Your task to perform on an android device: See recent photos Image 0: 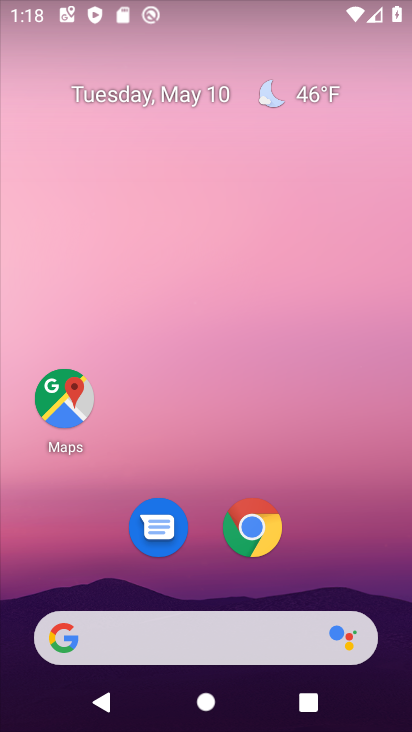
Step 0: drag from (322, 466) to (286, 1)
Your task to perform on an android device: See recent photos Image 1: 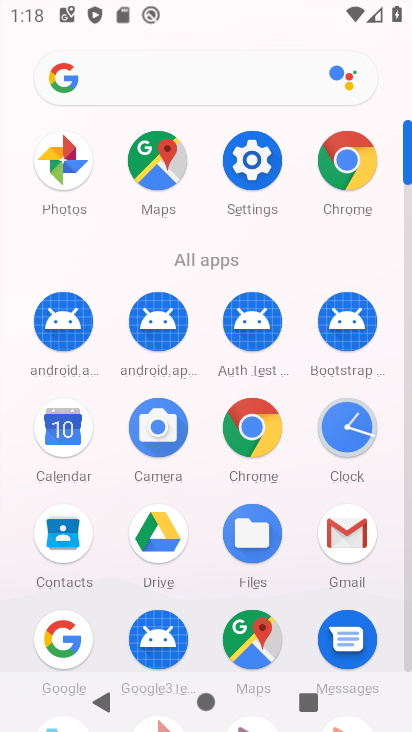
Step 1: click (56, 168)
Your task to perform on an android device: See recent photos Image 2: 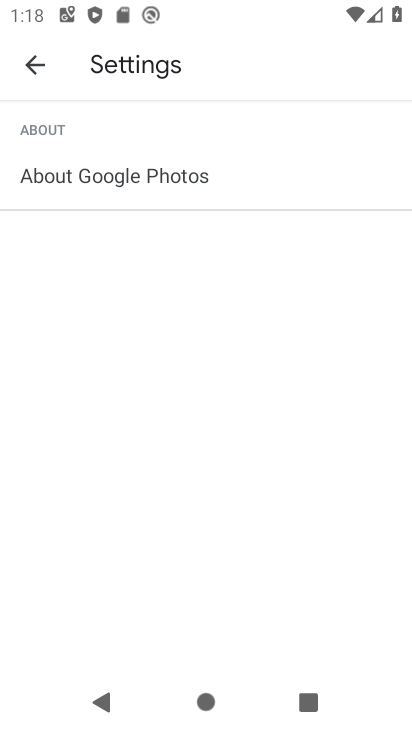
Step 2: click (31, 69)
Your task to perform on an android device: See recent photos Image 3: 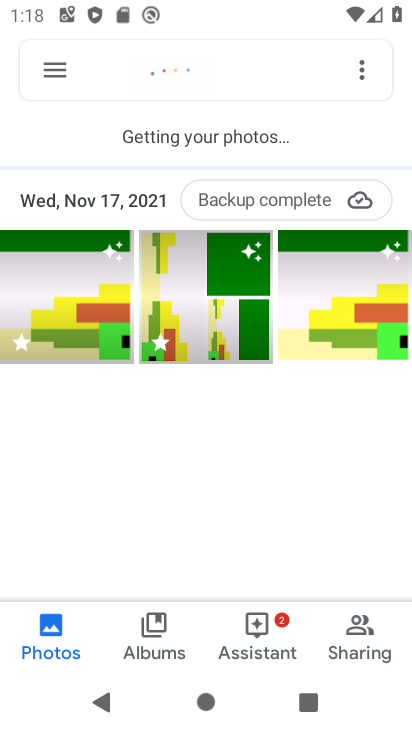
Step 3: drag from (260, 482) to (256, 361)
Your task to perform on an android device: See recent photos Image 4: 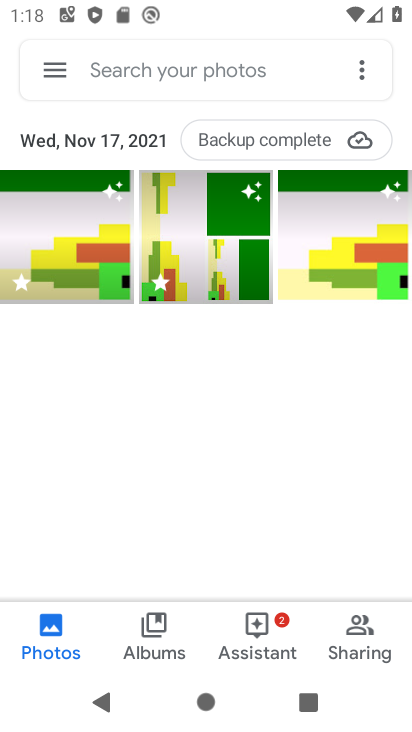
Step 4: click (60, 72)
Your task to perform on an android device: See recent photos Image 5: 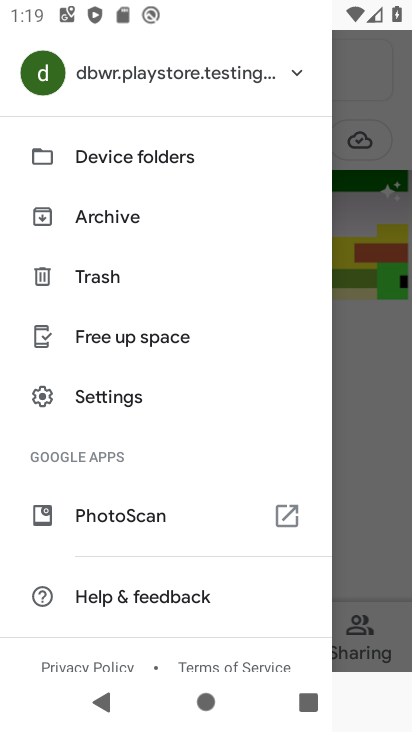
Step 5: click (353, 447)
Your task to perform on an android device: See recent photos Image 6: 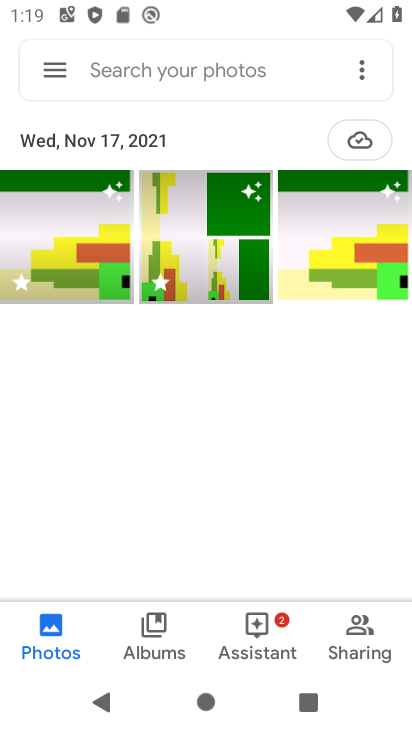
Step 6: task complete